Your task to perform on an android device: turn off notifications in google photos Image 0: 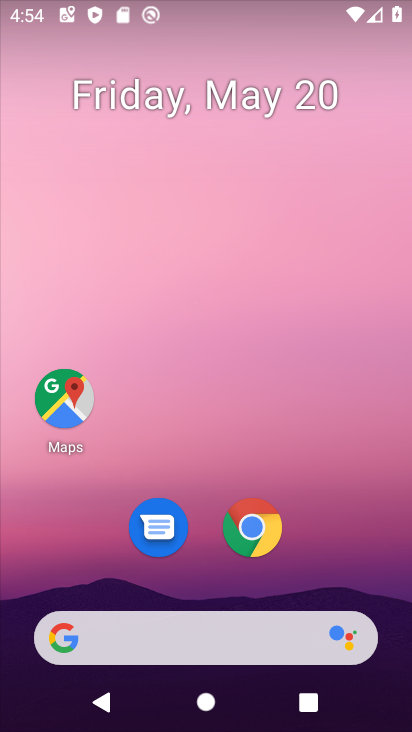
Step 0: drag from (211, 557) to (202, 165)
Your task to perform on an android device: turn off notifications in google photos Image 1: 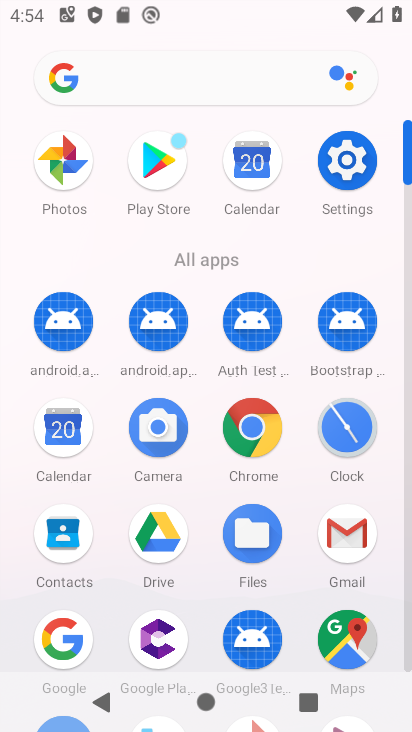
Step 1: click (84, 156)
Your task to perform on an android device: turn off notifications in google photos Image 2: 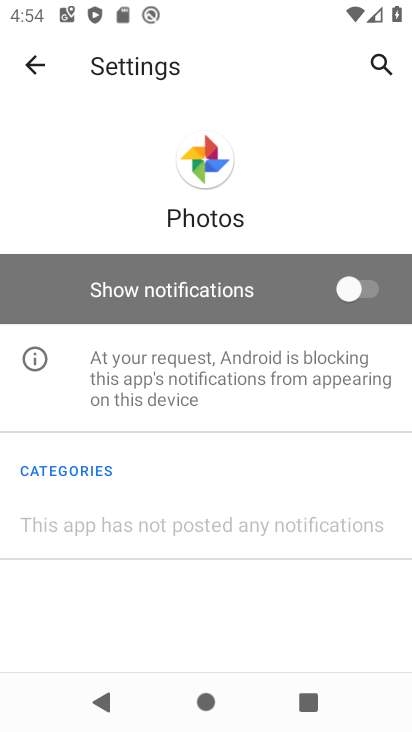
Step 2: task complete